Your task to perform on an android device: Search for a new eyeshadow Image 0: 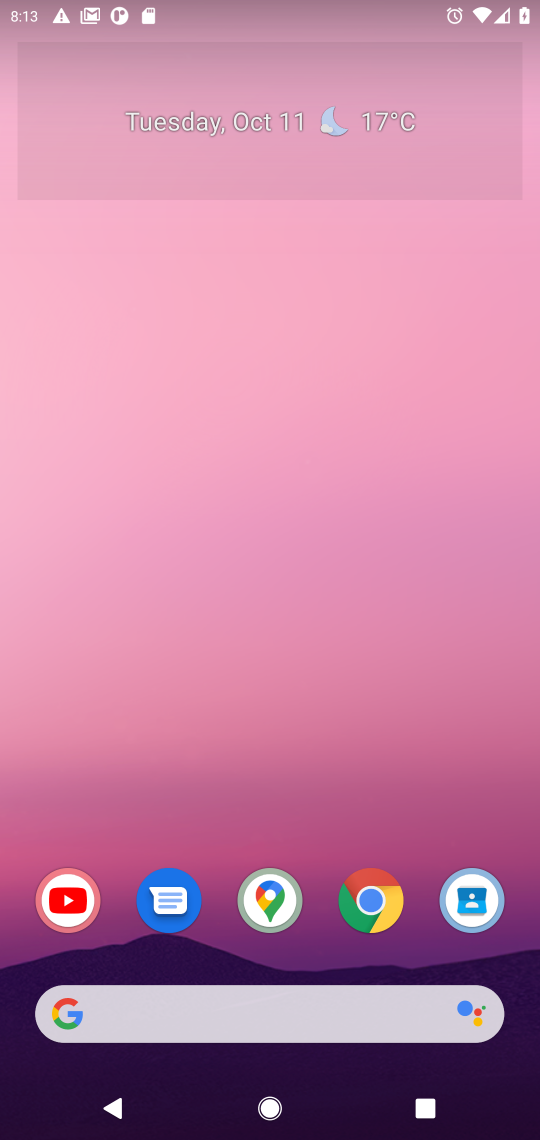
Step 0: click (368, 905)
Your task to perform on an android device: Search for a new eyeshadow Image 1: 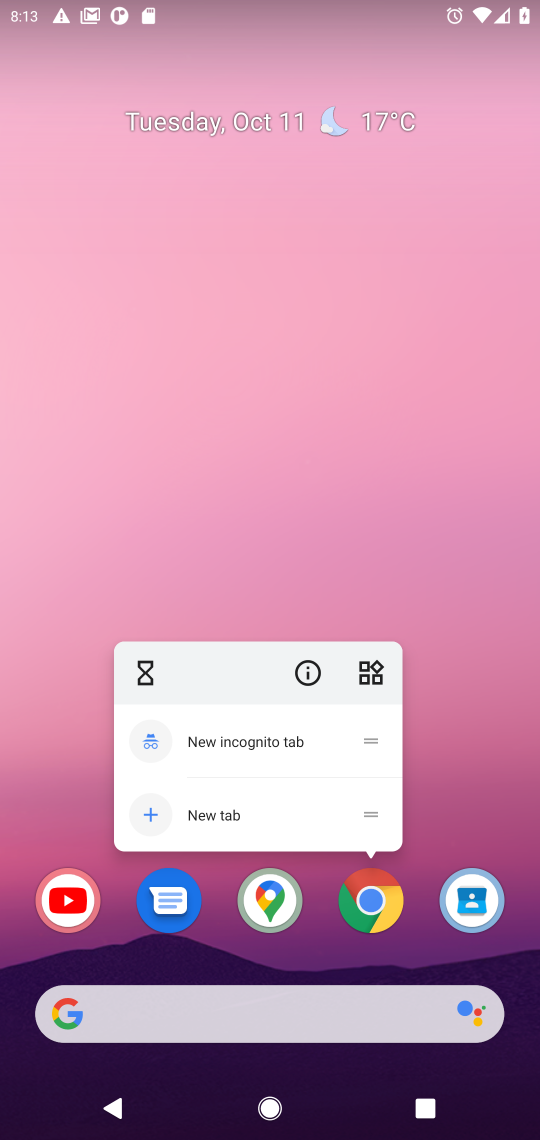
Step 1: click (368, 910)
Your task to perform on an android device: Search for a new eyeshadow Image 2: 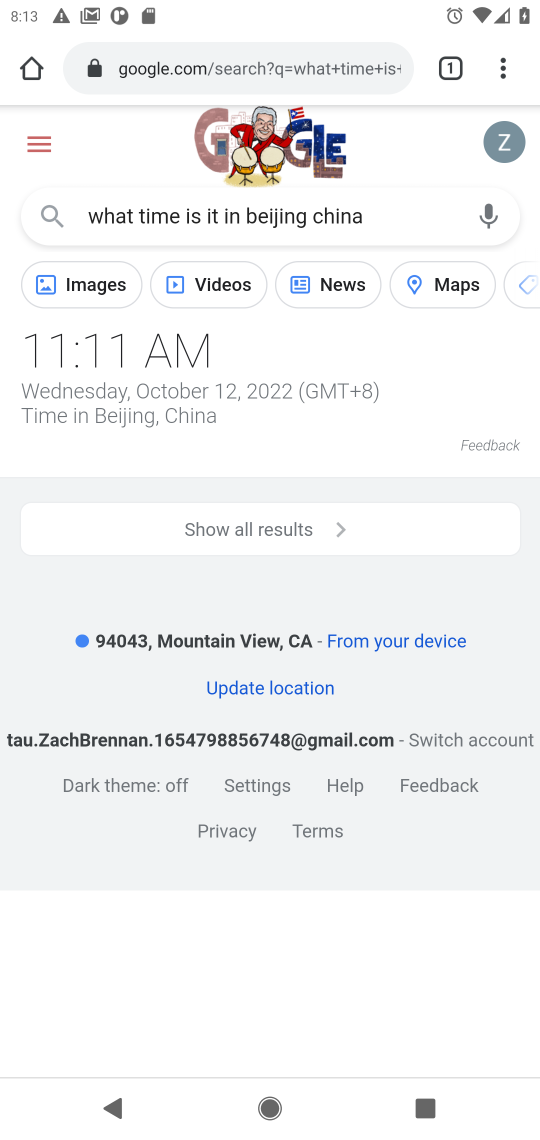
Step 2: click (245, 50)
Your task to perform on an android device: Search for a new eyeshadow Image 3: 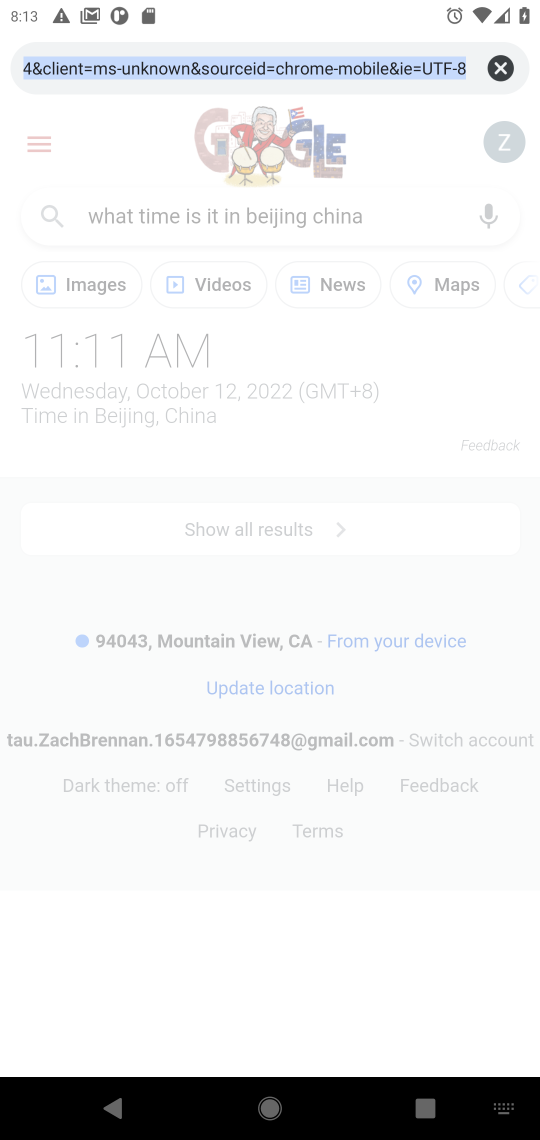
Step 3: click (499, 58)
Your task to perform on an android device: Search for a new eyeshadow Image 4: 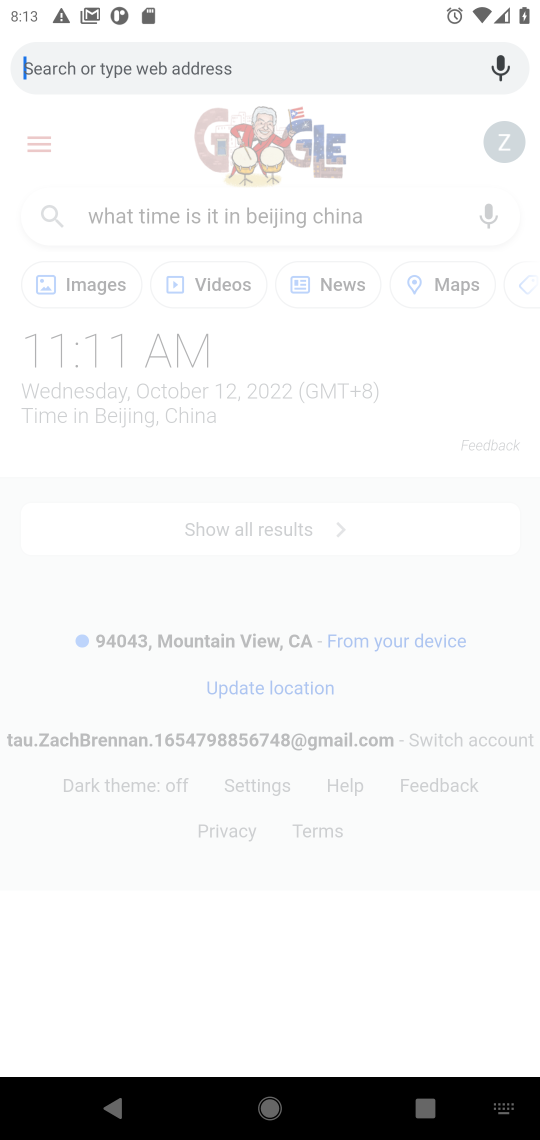
Step 4: type " new eyeshadow"
Your task to perform on an android device: Search for a new eyeshadow Image 5: 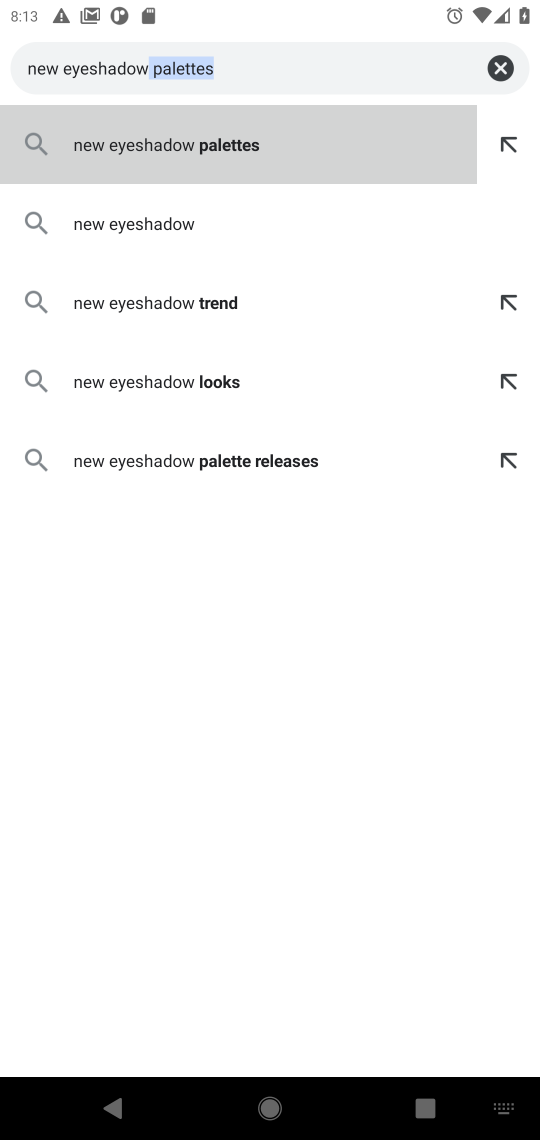
Step 5: press enter
Your task to perform on an android device: Search for a new eyeshadow Image 6: 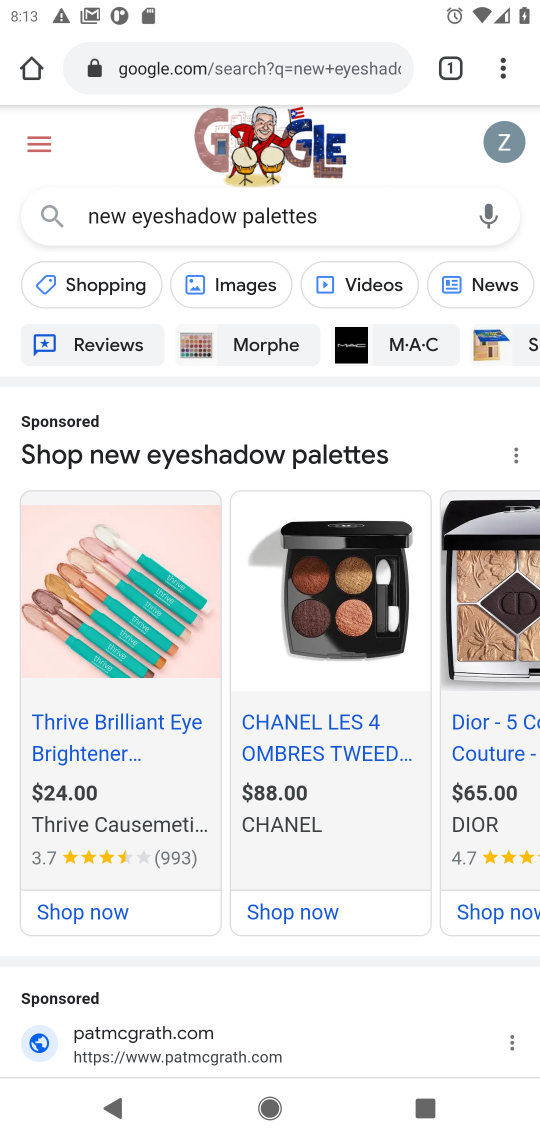
Step 6: drag from (269, 969) to (375, 435)
Your task to perform on an android device: Search for a new eyeshadow Image 7: 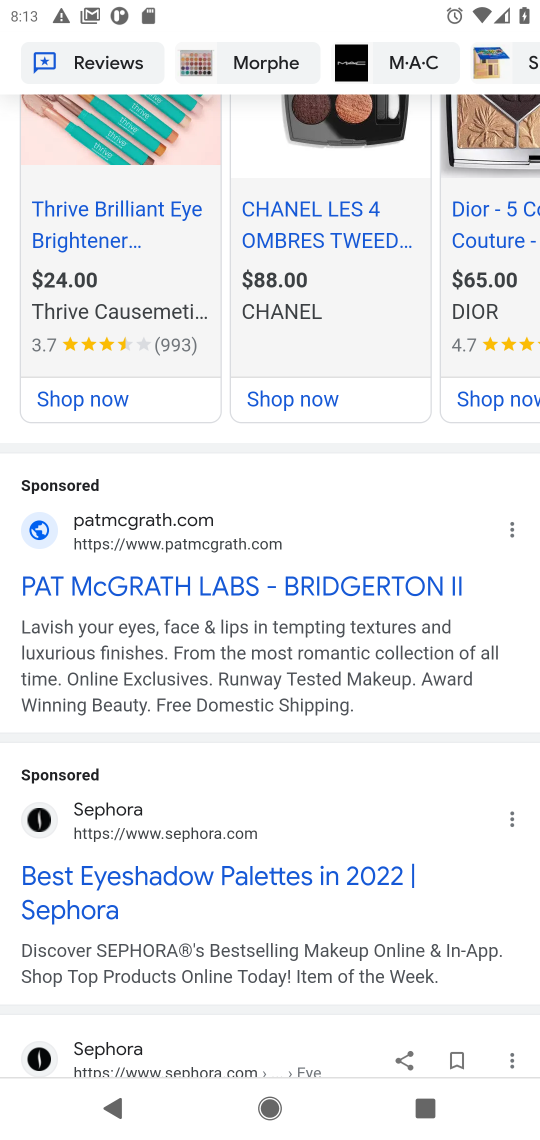
Step 7: drag from (330, 816) to (403, 573)
Your task to perform on an android device: Search for a new eyeshadow Image 8: 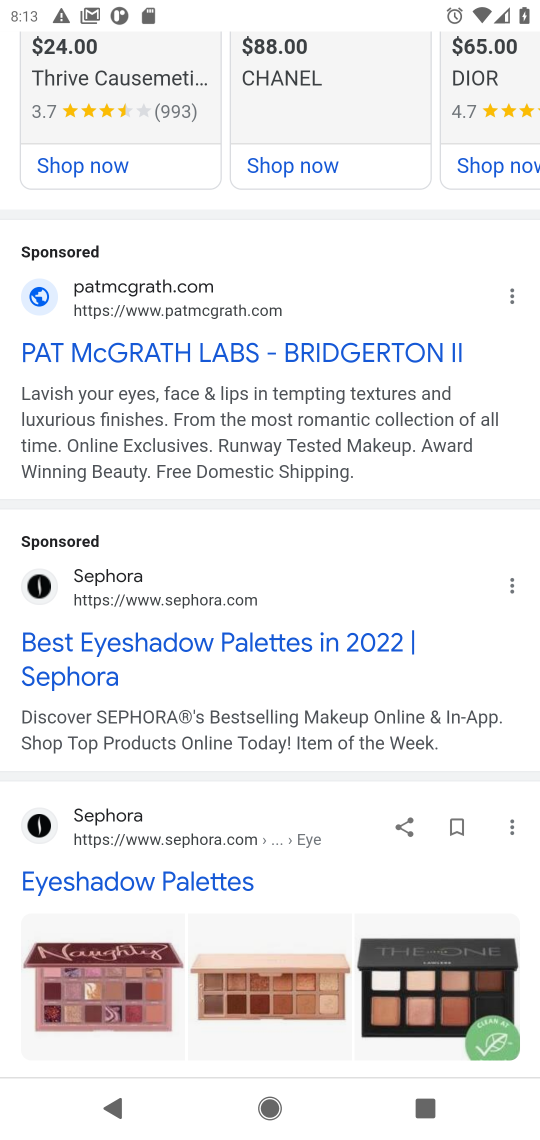
Step 8: drag from (249, 874) to (293, 350)
Your task to perform on an android device: Search for a new eyeshadow Image 9: 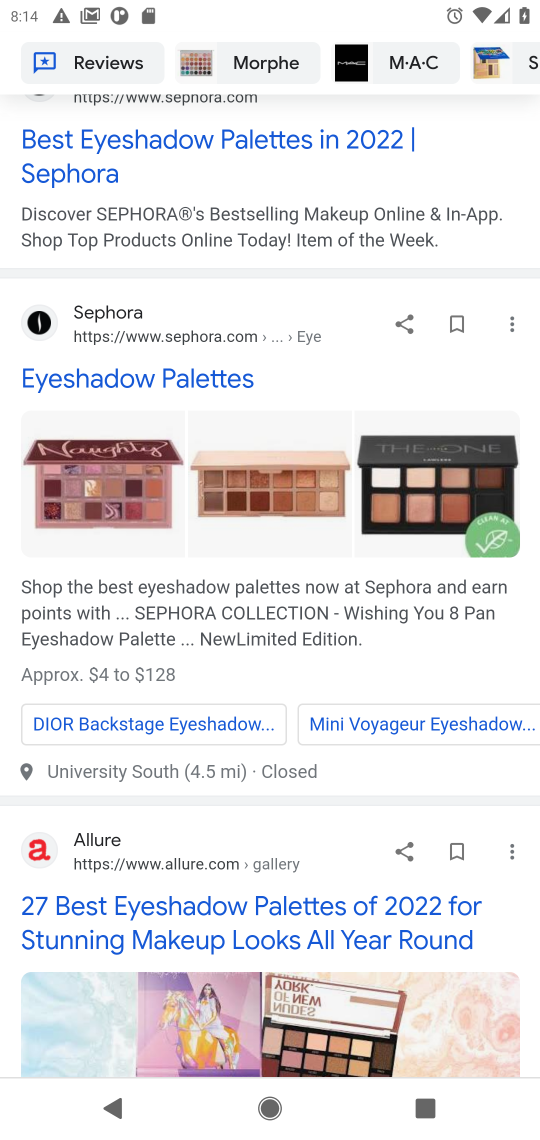
Step 9: click (330, 897)
Your task to perform on an android device: Search for a new eyeshadow Image 10: 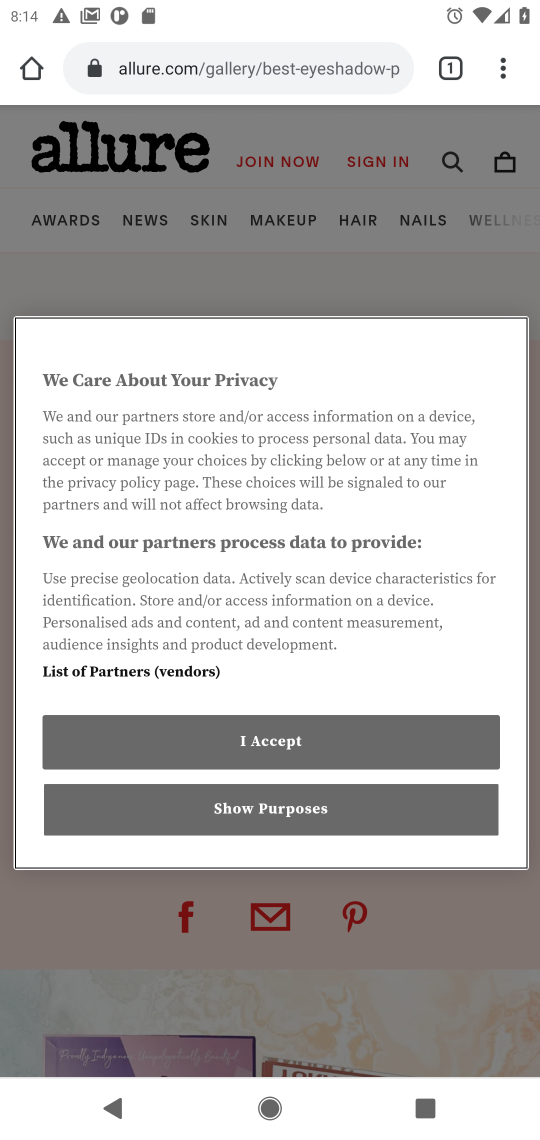
Step 10: click (302, 731)
Your task to perform on an android device: Search for a new eyeshadow Image 11: 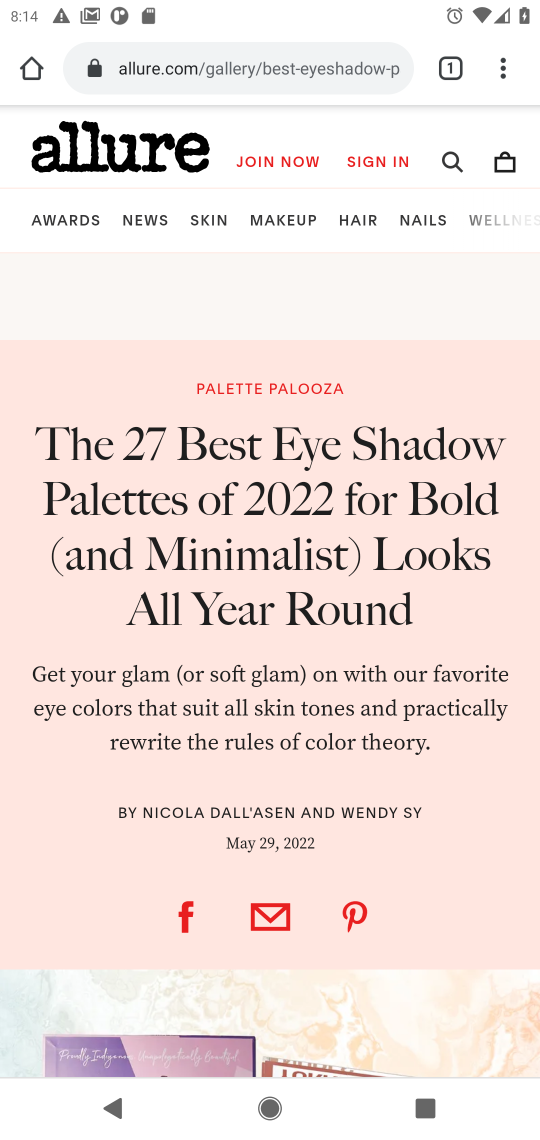
Step 11: task complete